Your task to perform on an android device: Clear the shopping cart on newegg.com. Add jbl flip 4 to the cart on newegg.com Image 0: 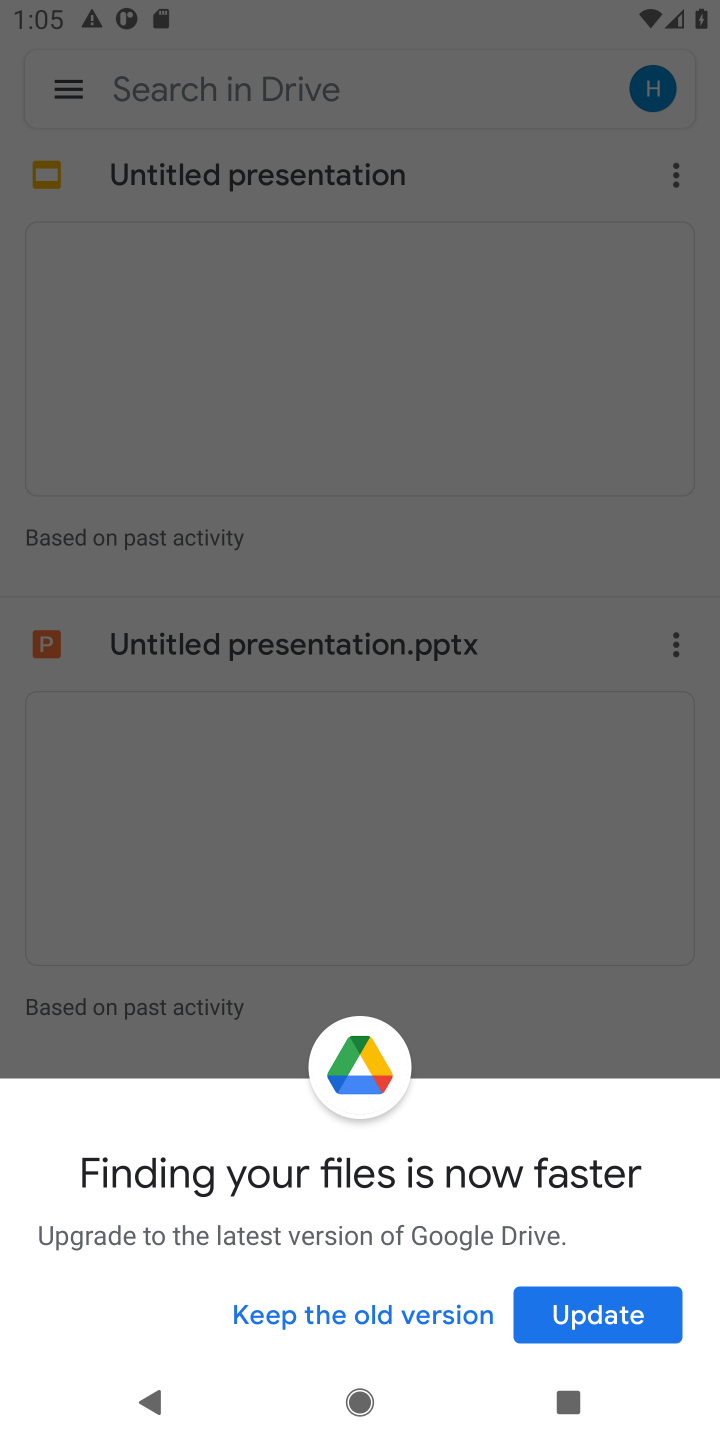
Step 0: press home button
Your task to perform on an android device: Clear the shopping cart on newegg.com. Add jbl flip 4 to the cart on newegg.com Image 1: 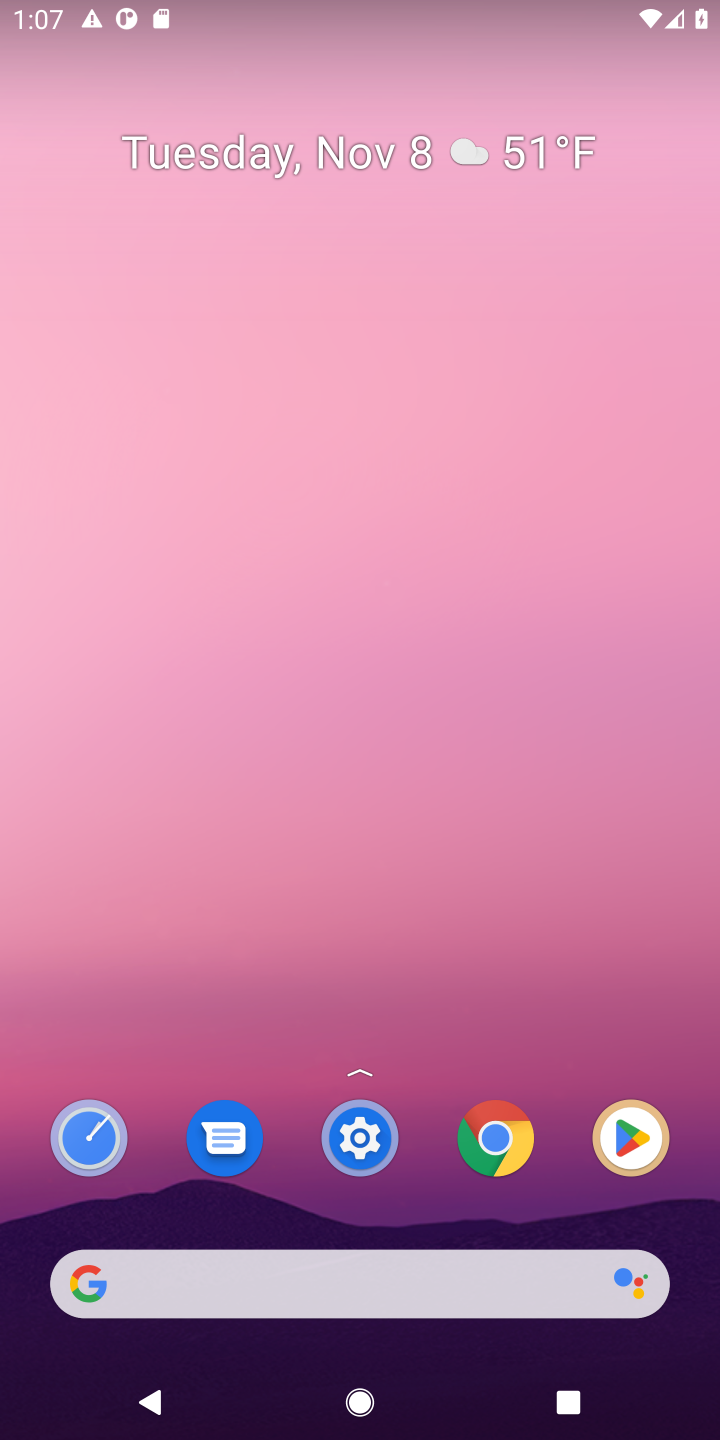
Step 1: click (353, 1284)
Your task to perform on an android device: Clear the shopping cart on newegg.com. Add jbl flip 4 to the cart on newegg.com Image 2: 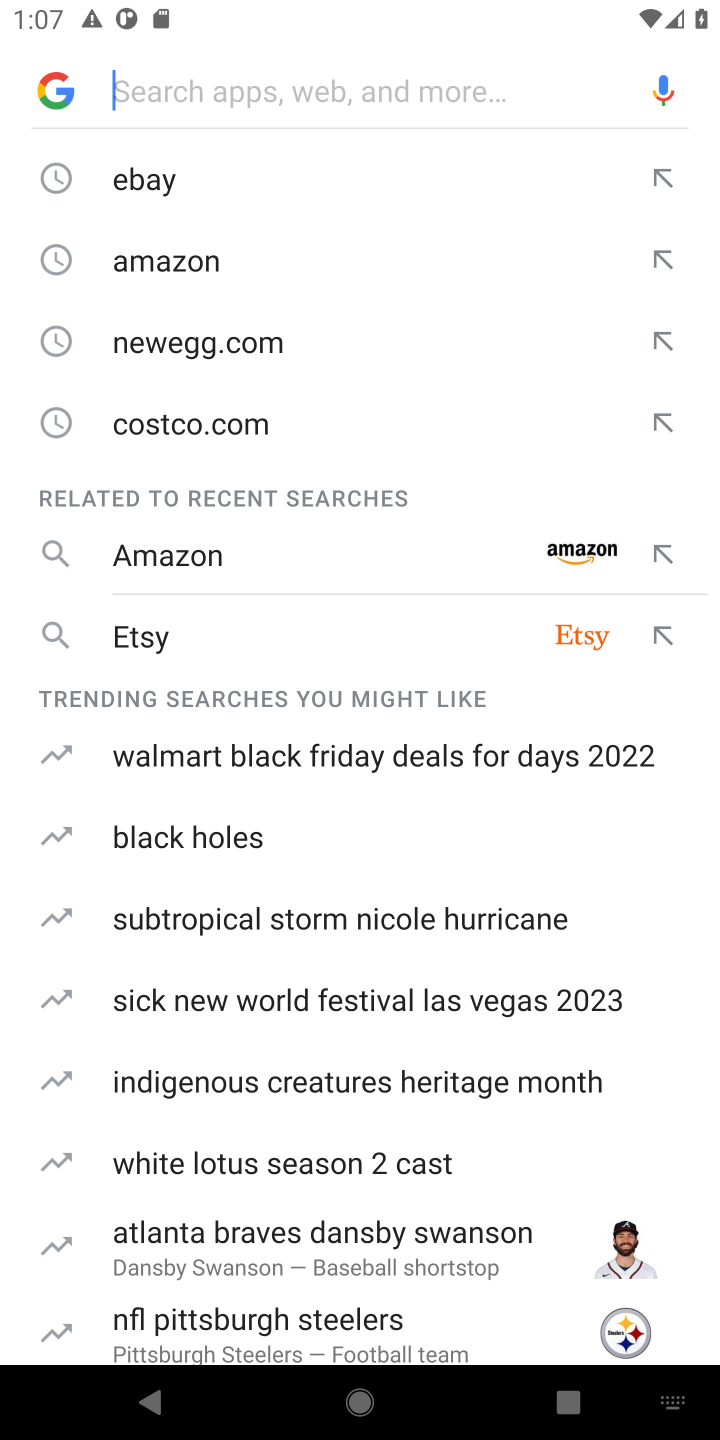
Step 2: click (295, 348)
Your task to perform on an android device: Clear the shopping cart on newegg.com. Add jbl flip 4 to the cart on newegg.com Image 3: 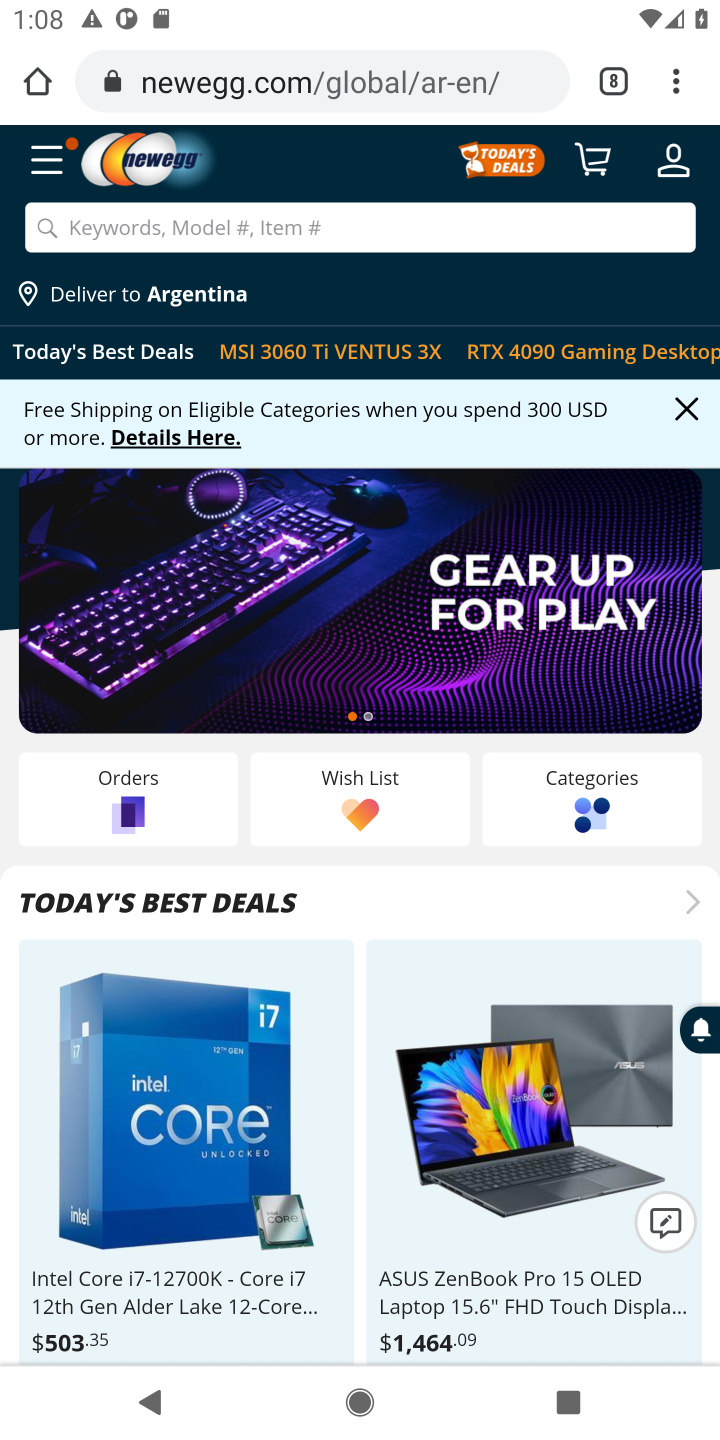
Step 3: click (193, 228)
Your task to perform on an android device: Clear the shopping cart on newegg.com. Add jbl flip 4 to the cart on newegg.com Image 4: 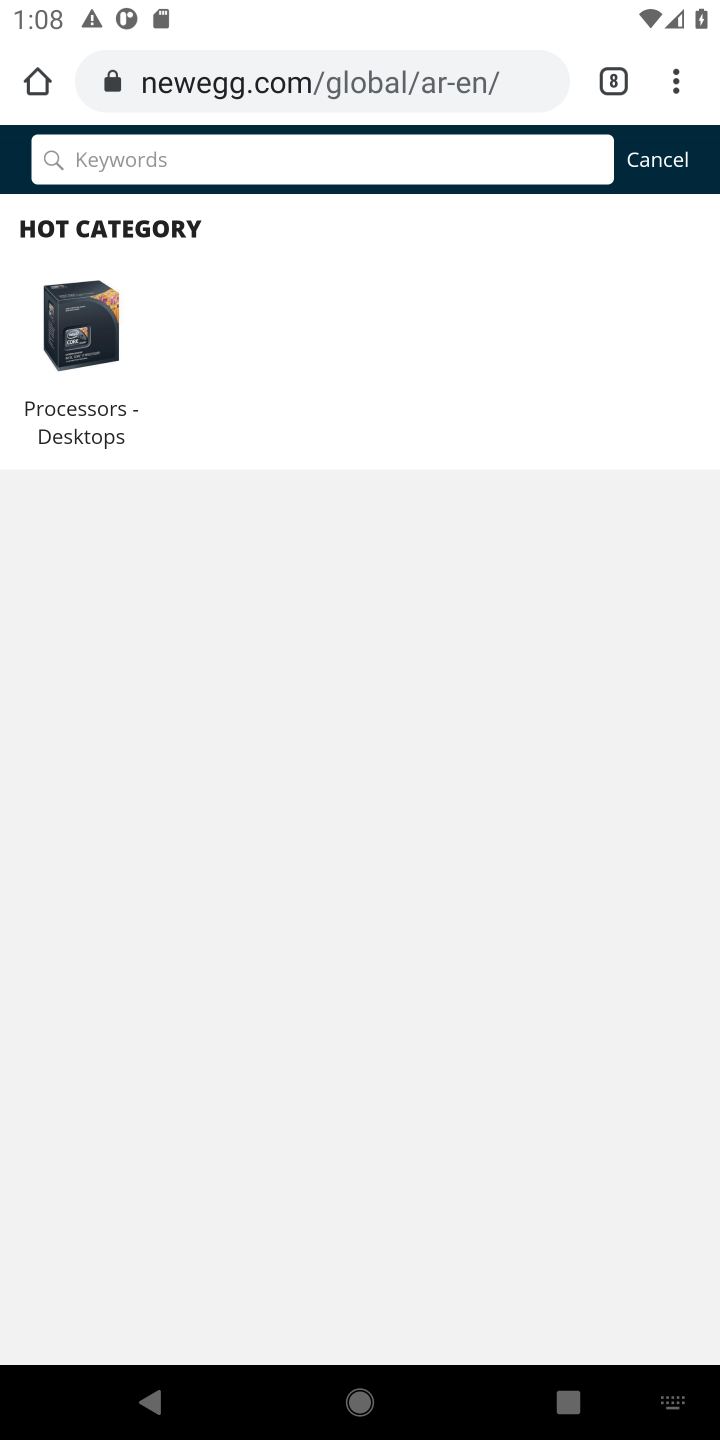
Step 4: type "jbl flip 4"
Your task to perform on an android device: Clear the shopping cart on newegg.com. Add jbl flip 4 to the cart on newegg.com Image 5: 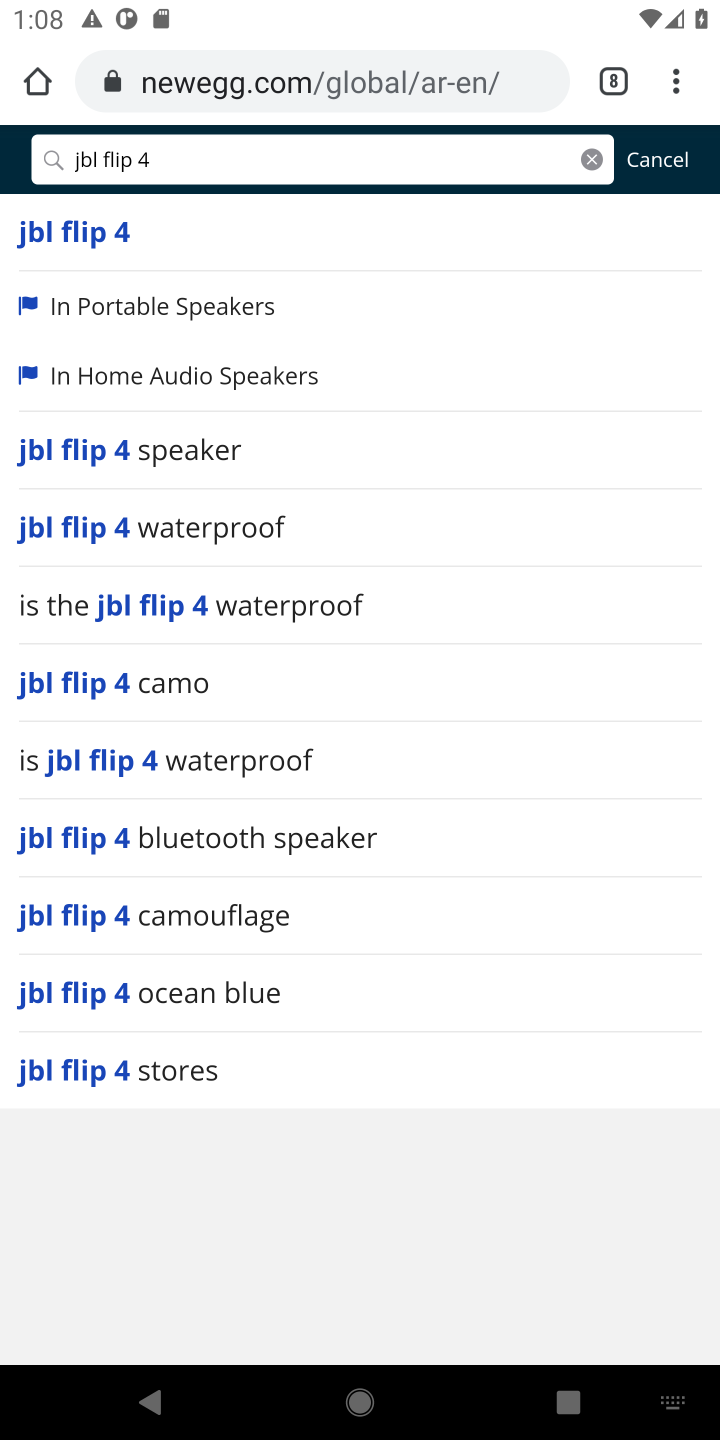
Step 5: click (67, 214)
Your task to perform on an android device: Clear the shopping cart on newegg.com. Add jbl flip 4 to the cart on newegg.com Image 6: 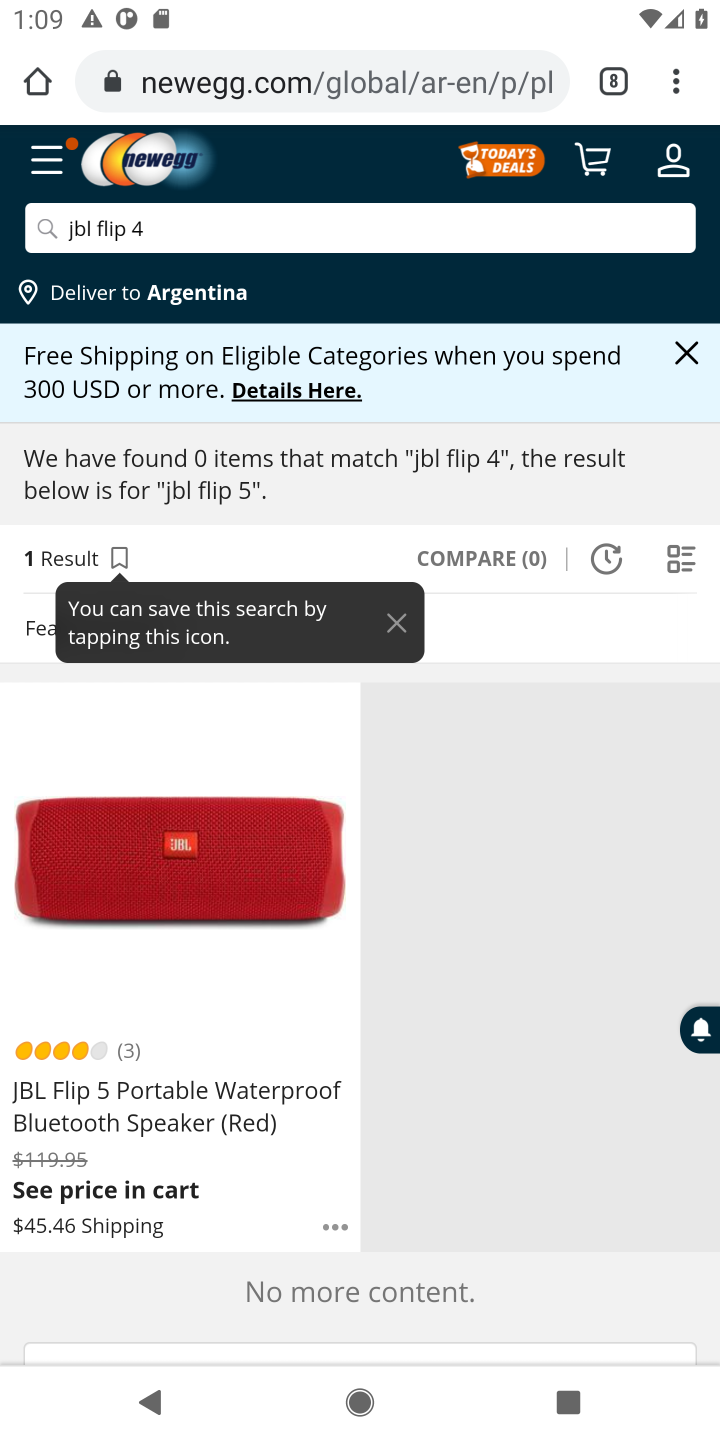
Step 6: task complete